Your task to perform on an android device: turn on javascript in the chrome app Image 0: 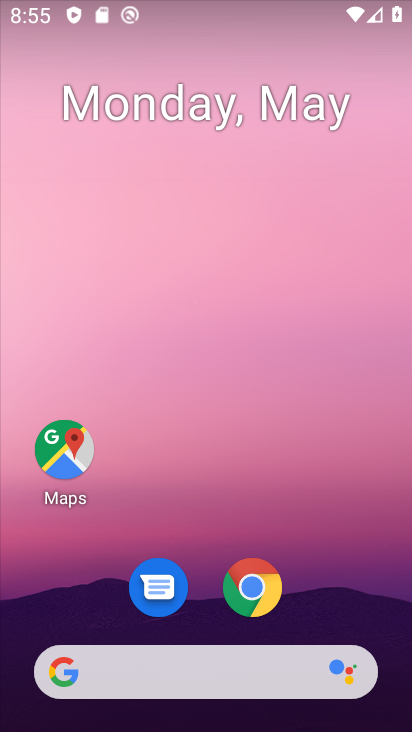
Step 0: click (250, 607)
Your task to perform on an android device: turn on javascript in the chrome app Image 1: 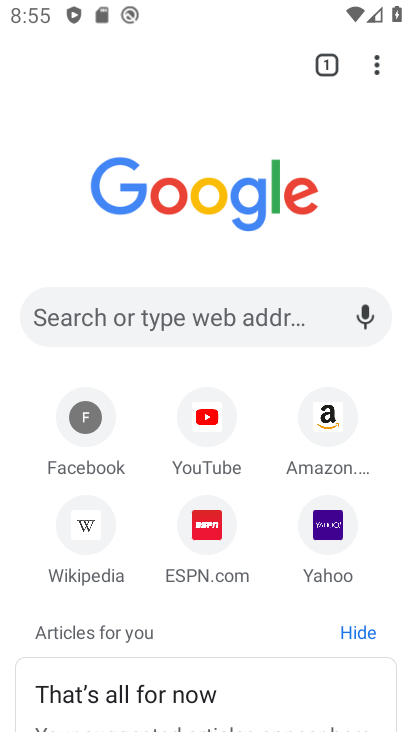
Step 1: click (383, 62)
Your task to perform on an android device: turn on javascript in the chrome app Image 2: 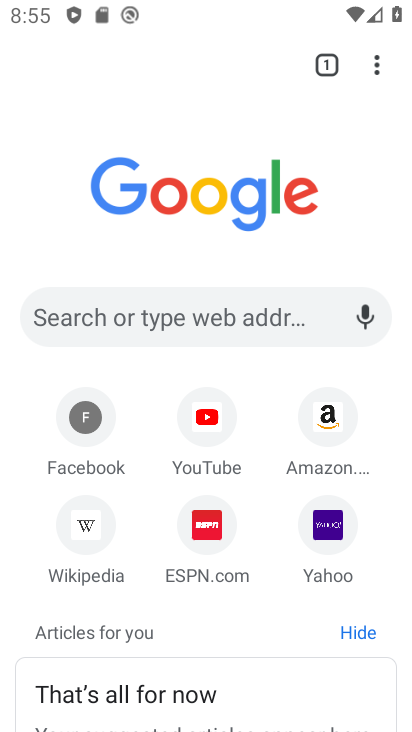
Step 2: drag from (383, 62) to (142, 543)
Your task to perform on an android device: turn on javascript in the chrome app Image 3: 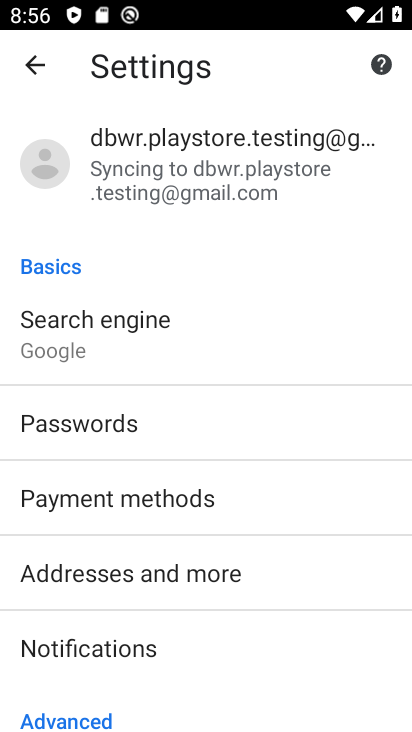
Step 3: drag from (177, 669) to (156, 179)
Your task to perform on an android device: turn on javascript in the chrome app Image 4: 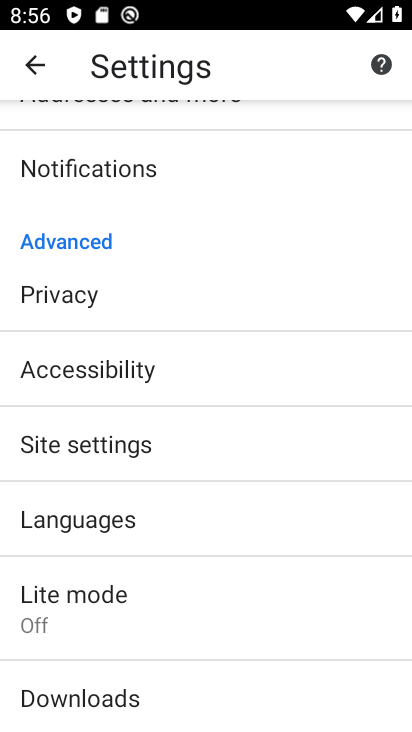
Step 4: click (109, 463)
Your task to perform on an android device: turn on javascript in the chrome app Image 5: 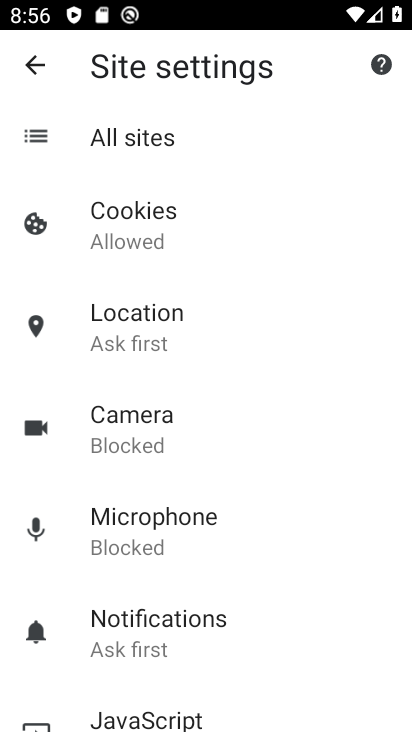
Step 5: drag from (172, 592) to (160, 438)
Your task to perform on an android device: turn on javascript in the chrome app Image 6: 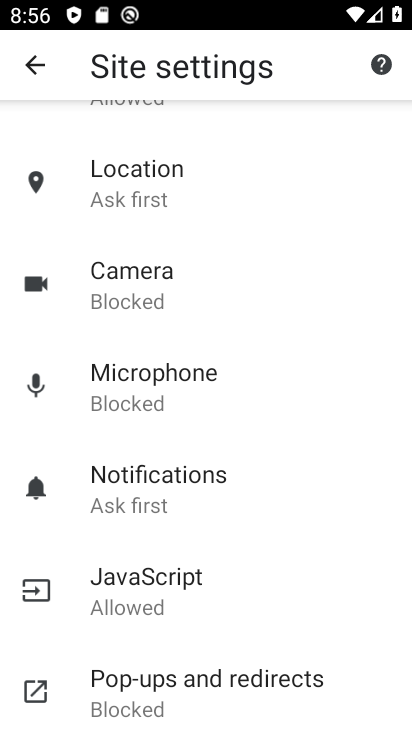
Step 6: click (157, 584)
Your task to perform on an android device: turn on javascript in the chrome app Image 7: 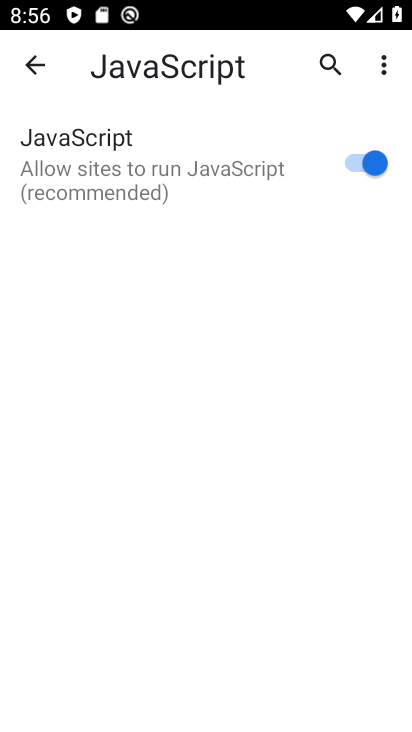
Step 7: task complete